Your task to perform on an android device: Go to sound settings Image 0: 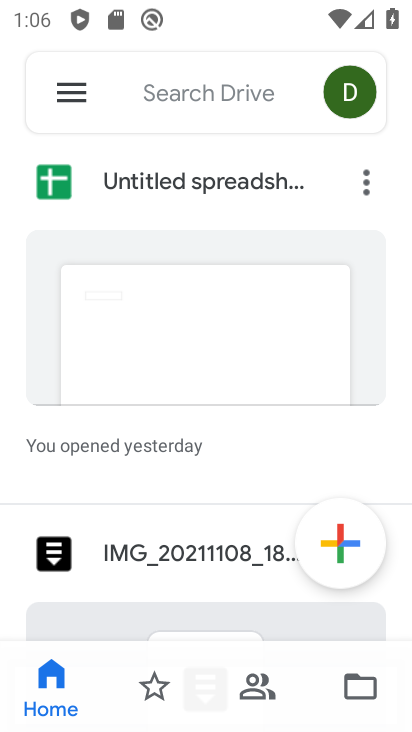
Step 0: press home button
Your task to perform on an android device: Go to sound settings Image 1: 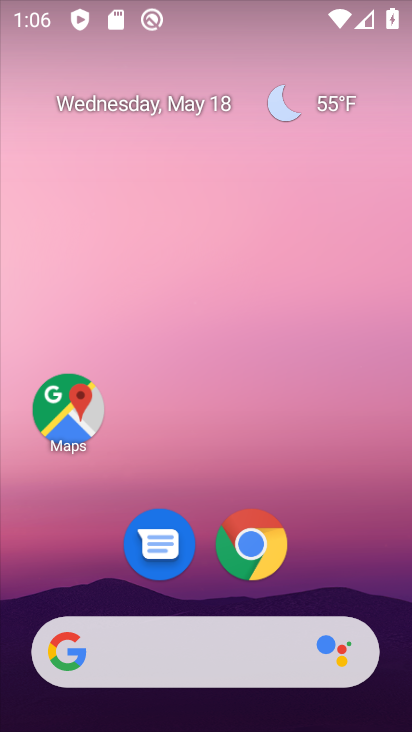
Step 1: drag from (322, 570) to (330, 83)
Your task to perform on an android device: Go to sound settings Image 2: 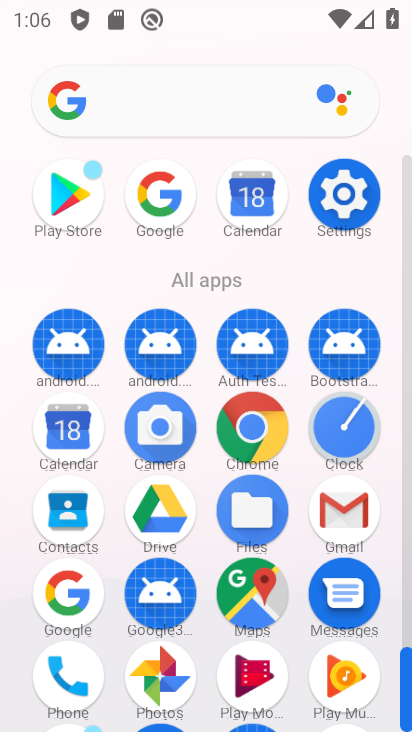
Step 2: click (342, 184)
Your task to perform on an android device: Go to sound settings Image 3: 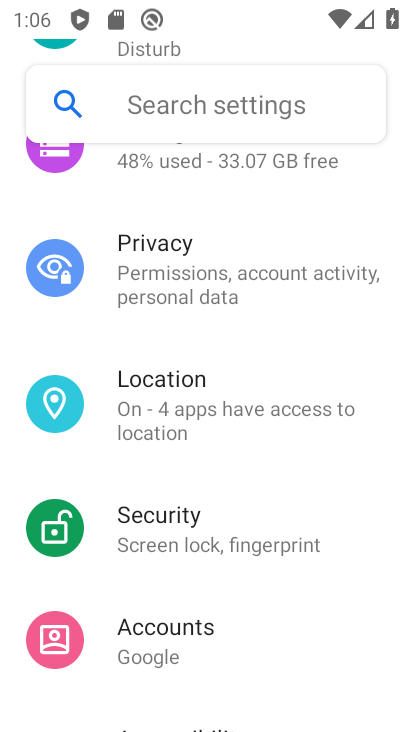
Step 3: drag from (268, 216) to (228, 489)
Your task to perform on an android device: Go to sound settings Image 4: 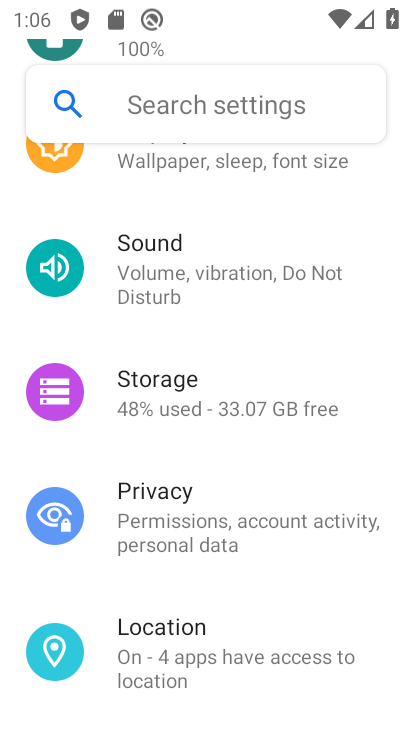
Step 4: click (234, 284)
Your task to perform on an android device: Go to sound settings Image 5: 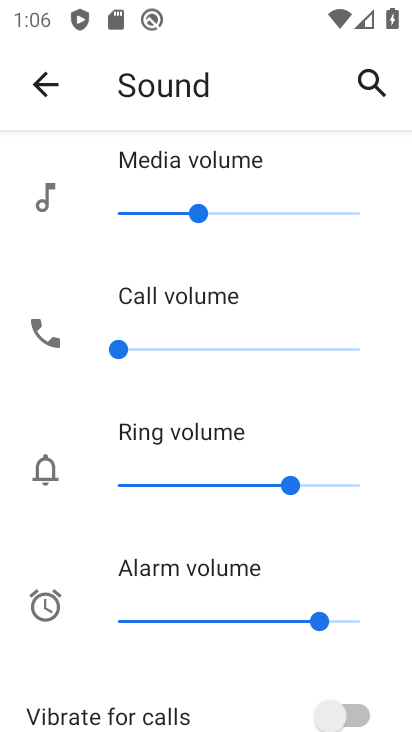
Step 5: task complete